Your task to perform on an android device: Go to accessibility settings Image 0: 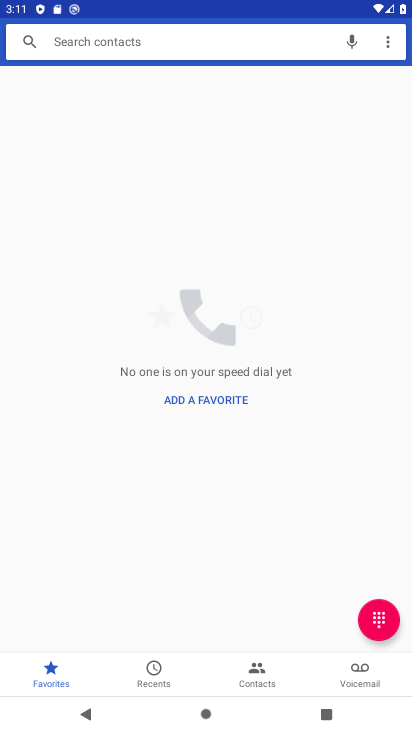
Step 0: press home button
Your task to perform on an android device: Go to accessibility settings Image 1: 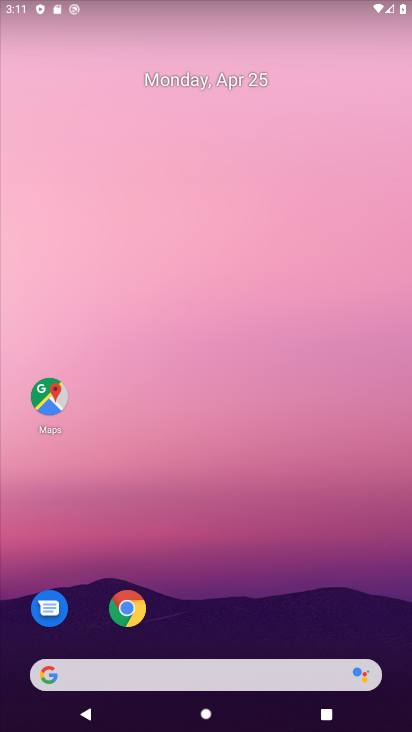
Step 1: drag from (240, 651) to (218, 5)
Your task to perform on an android device: Go to accessibility settings Image 2: 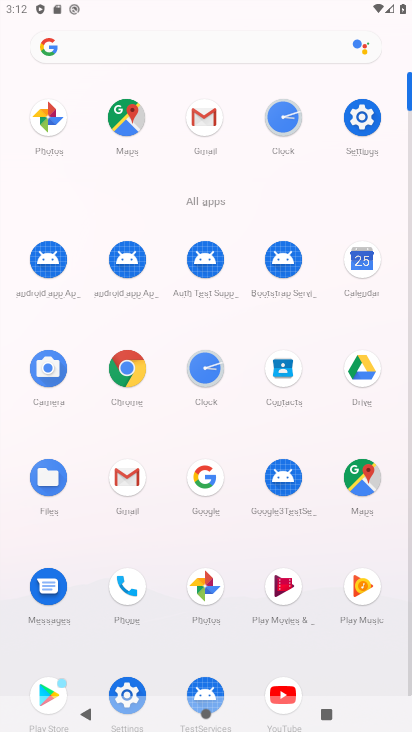
Step 2: click (374, 137)
Your task to perform on an android device: Go to accessibility settings Image 3: 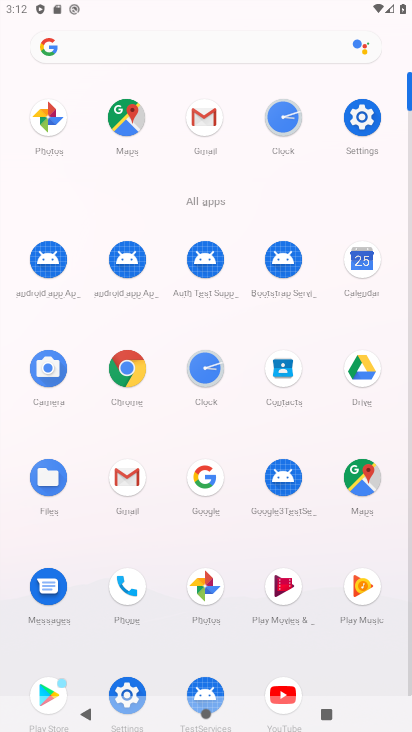
Step 3: click (365, 120)
Your task to perform on an android device: Go to accessibility settings Image 4: 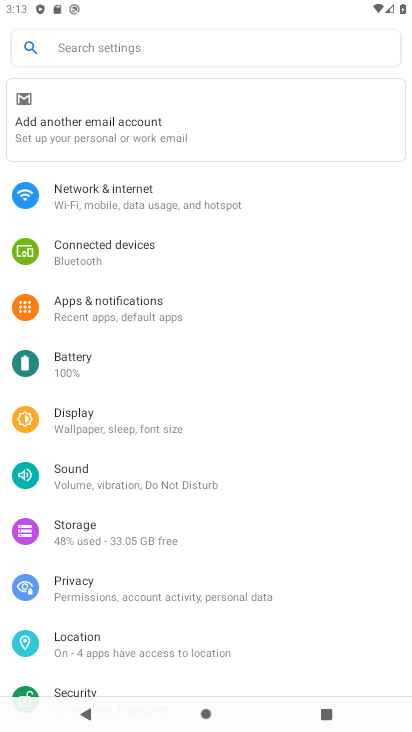
Step 4: drag from (246, 475) to (326, 224)
Your task to perform on an android device: Go to accessibility settings Image 5: 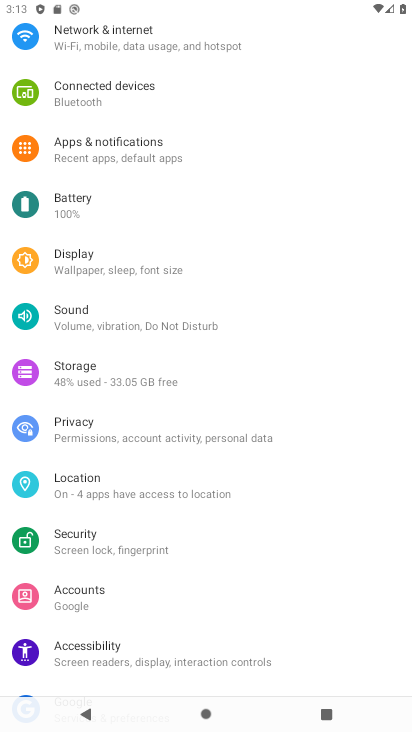
Step 5: click (191, 645)
Your task to perform on an android device: Go to accessibility settings Image 6: 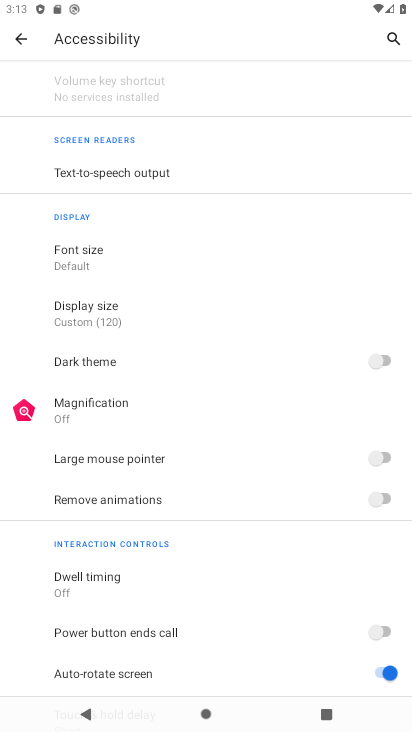
Step 6: task complete